Your task to perform on an android device: allow cookies in the chrome app Image 0: 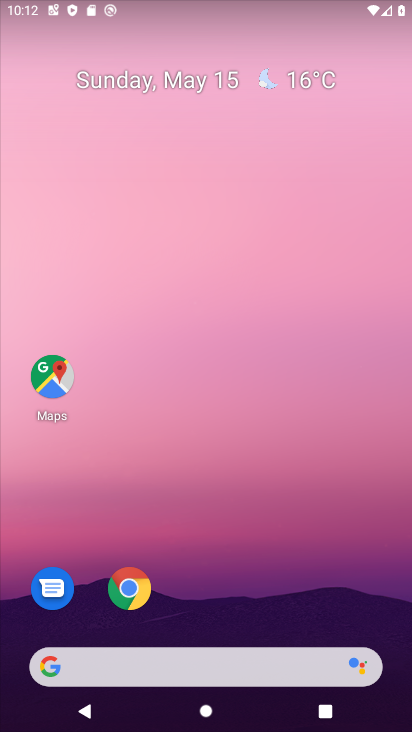
Step 0: click (129, 592)
Your task to perform on an android device: allow cookies in the chrome app Image 1: 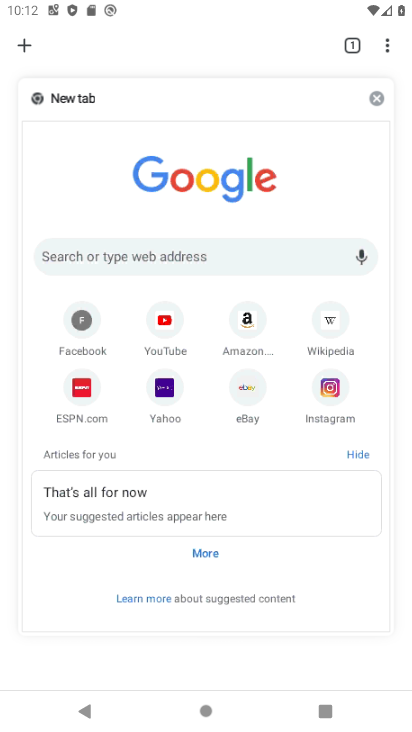
Step 1: click (388, 46)
Your task to perform on an android device: allow cookies in the chrome app Image 2: 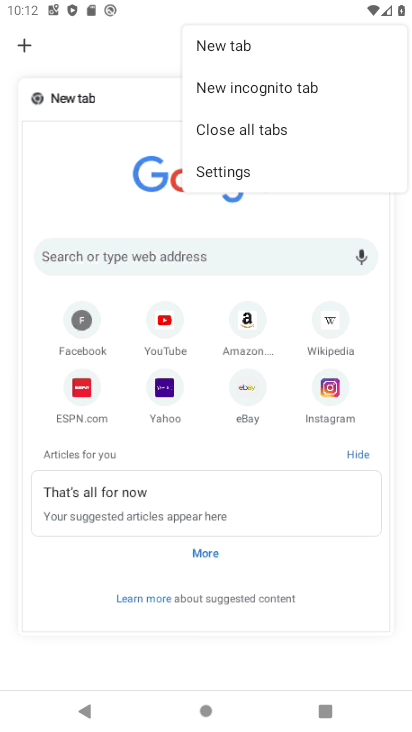
Step 2: click (236, 169)
Your task to perform on an android device: allow cookies in the chrome app Image 3: 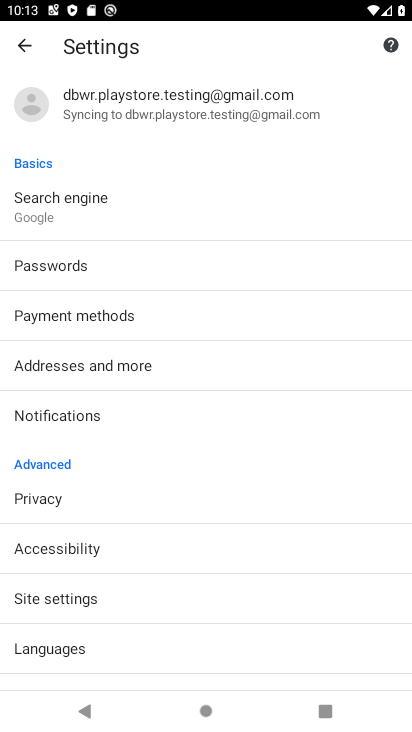
Step 3: drag from (133, 524) to (198, 176)
Your task to perform on an android device: allow cookies in the chrome app Image 4: 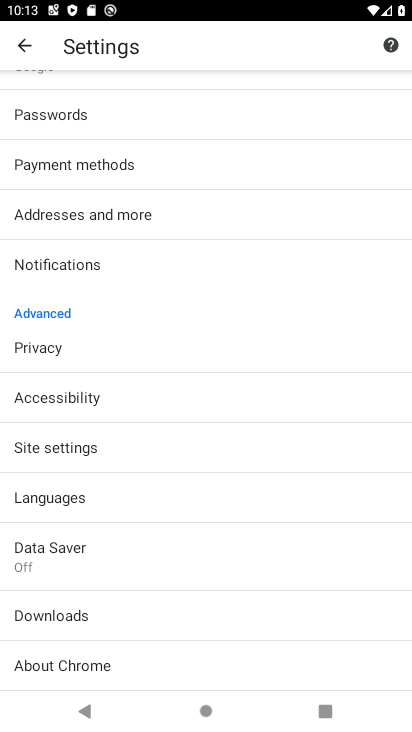
Step 4: click (128, 453)
Your task to perform on an android device: allow cookies in the chrome app Image 5: 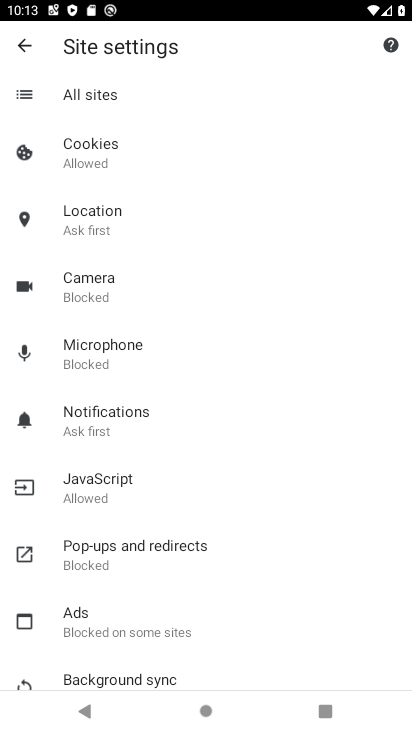
Step 5: click (134, 161)
Your task to perform on an android device: allow cookies in the chrome app Image 6: 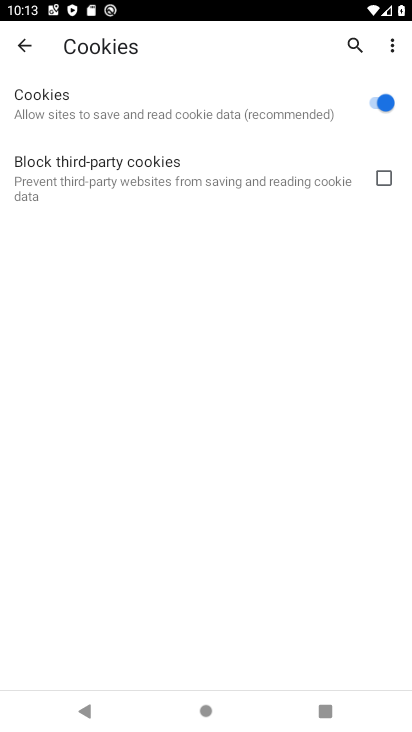
Step 6: task complete